Your task to perform on an android device: turn off location history Image 0: 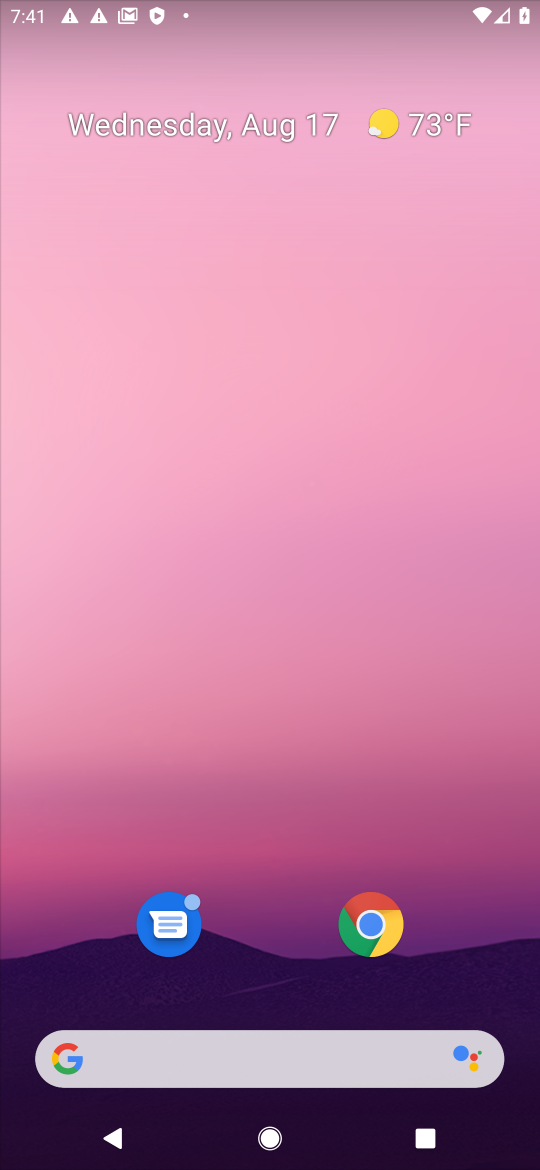
Step 0: drag from (286, 900) to (299, 116)
Your task to perform on an android device: turn off location history Image 1: 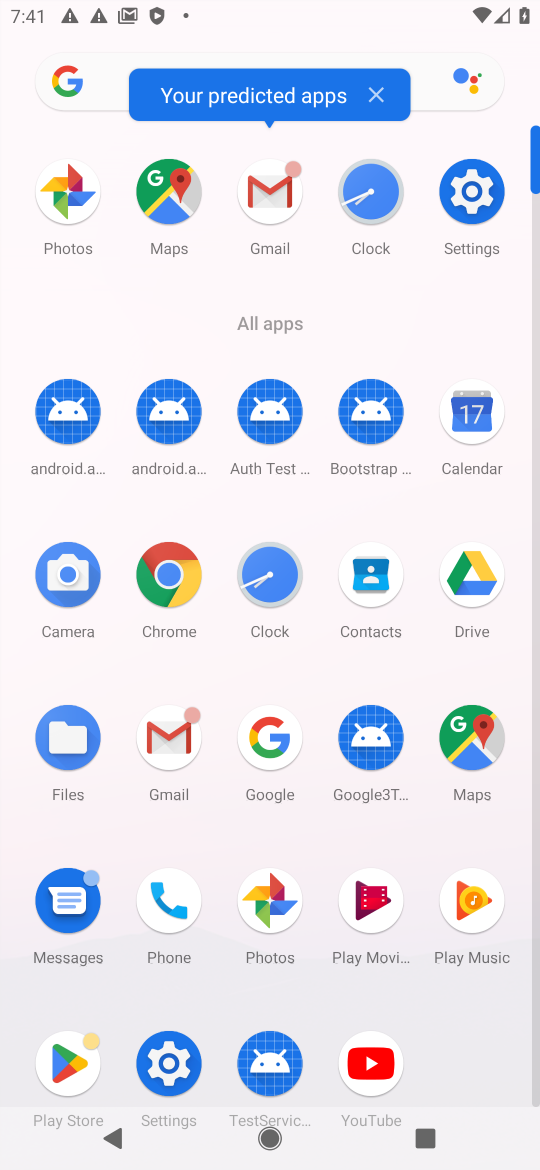
Step 1: click (478, 738)
Your task to perform on an android device: turn off location history Image 2: 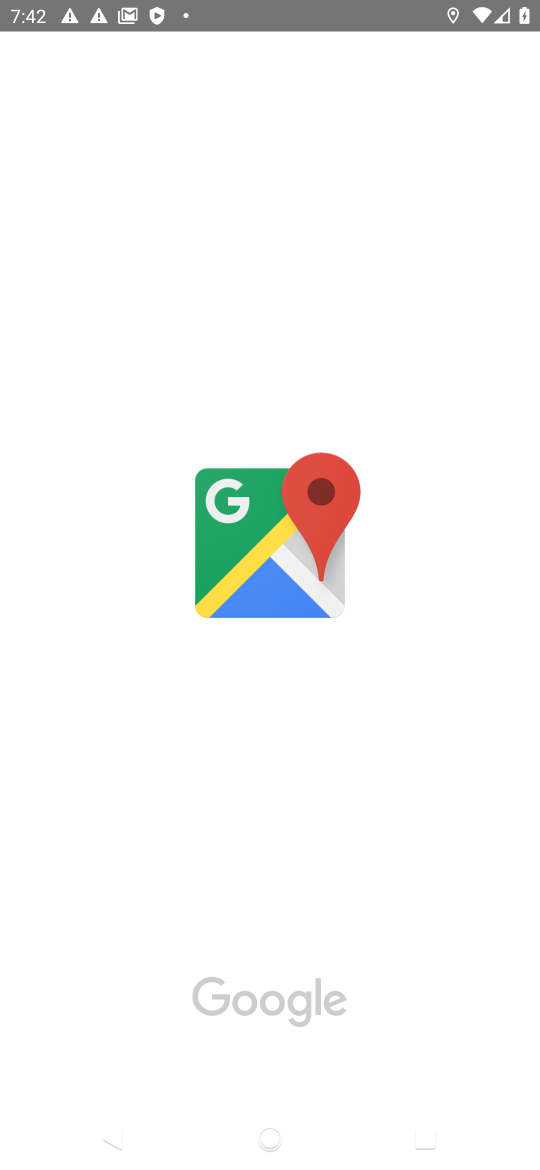
Step 2: task complete